Your task to perform on an android device: check out phone information Image 0: 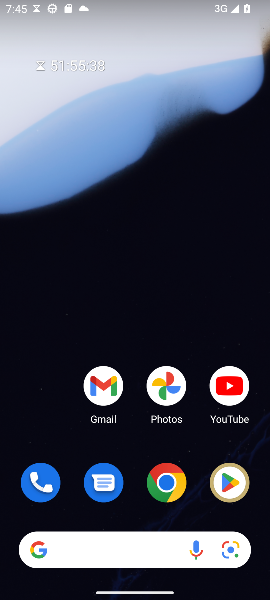
Step 0: drag from (102, 539) to (205, 99)
Your task to perform on an android device: check out phone information Image 1: 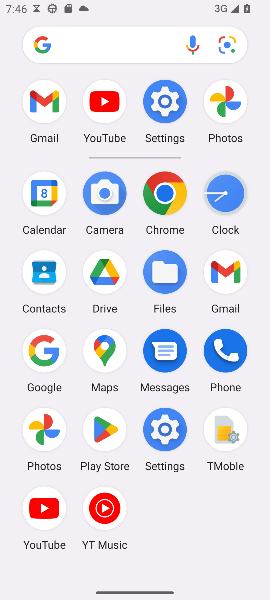
Step 1: click (168, 105)
Your task to perform on an android device: check out phone information Image 2: 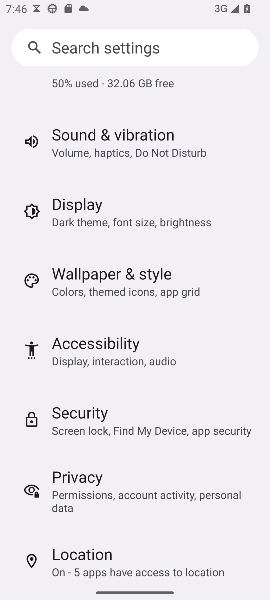
Step 2: drag from (91, 553) to (93, 152)
Your task to perform on an android device: check out phone information Image 3: 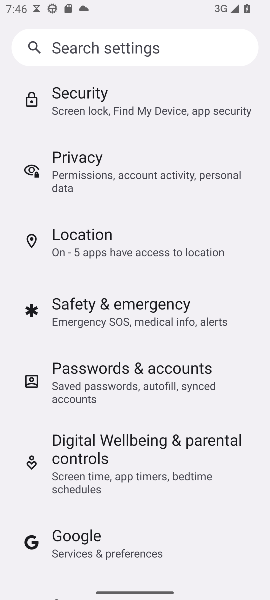
Step 3: drag from (127, 500) to (128, 165)
Your task to perform on an android device: check out phone information Image 4: 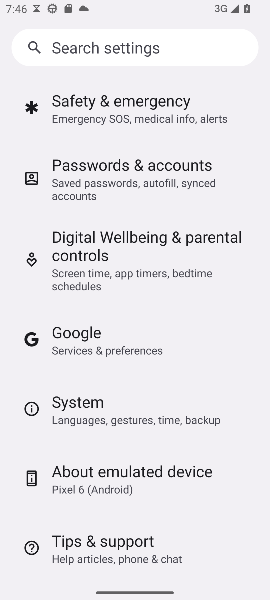
Step 4: click (130, 472)
Your task to perform on an android device: check out phone information Image 5: 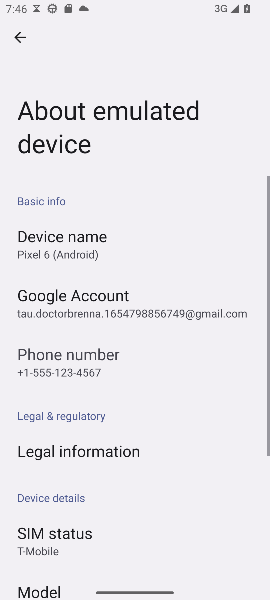
Step 5: task complete